Your task to perform on an android device: allow notifications from all sites in the chrome app Image 0: 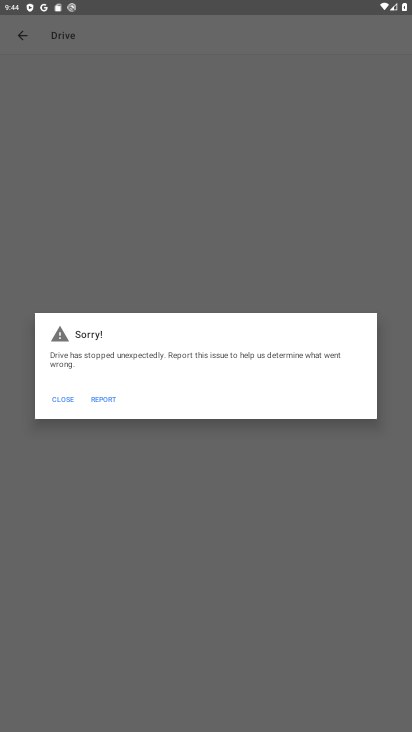
Step 0: press home button
Your task to perform on an android device: allow notifications from all sites in the chrome app Image 1: 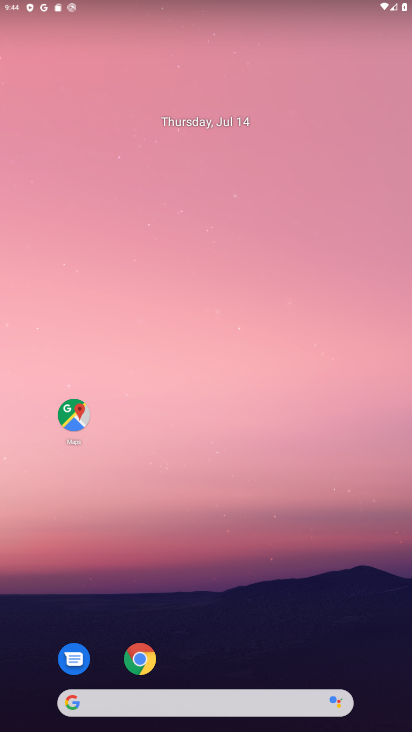
Step 1: drag from (290, 567) to (154, 35)
Your task to perform on an android device: allow notifications from all sites in the chrome app Image 2: 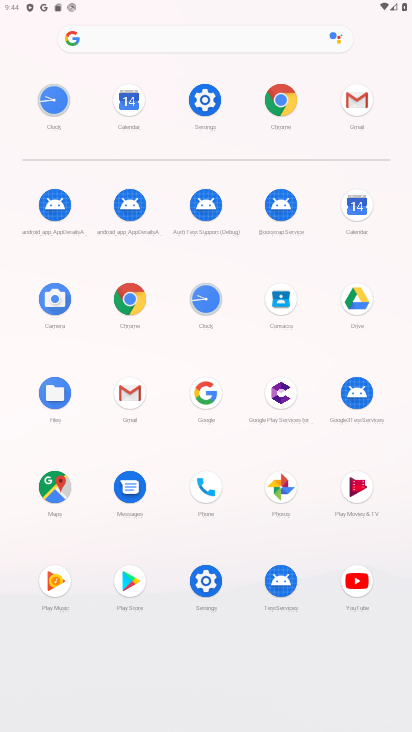
Step 2: click (130, 306)
Your task to perform on an android device: allow notifications from all sites in the chrome app Image 3: 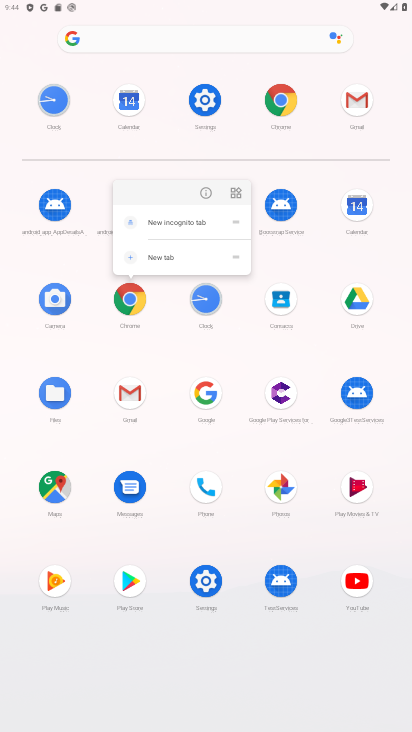
Step 3: click (130, 304)
Your task to perform on an android device: allow notifications from all sites in the chrome app Image 4: 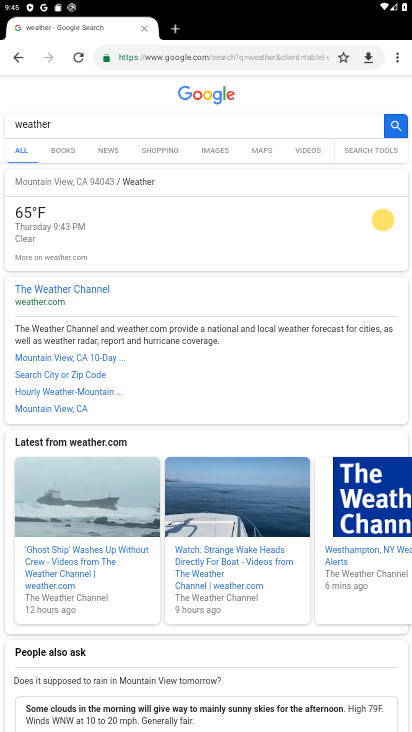
Step 4: drag from (399, 51) to (264, 350)
Your task to perform on an android device: allow notifications from all sites in the chrome app Image 5: 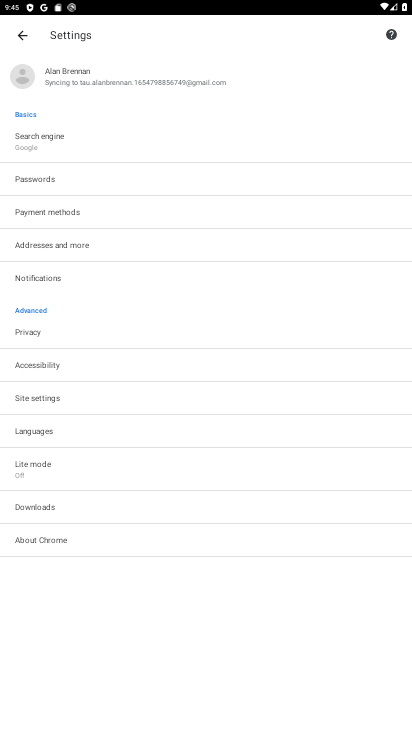
Step 5: click (38, 396)
Your task to perform on an android device: allow notifications from all sites in the chrome app Image 6: 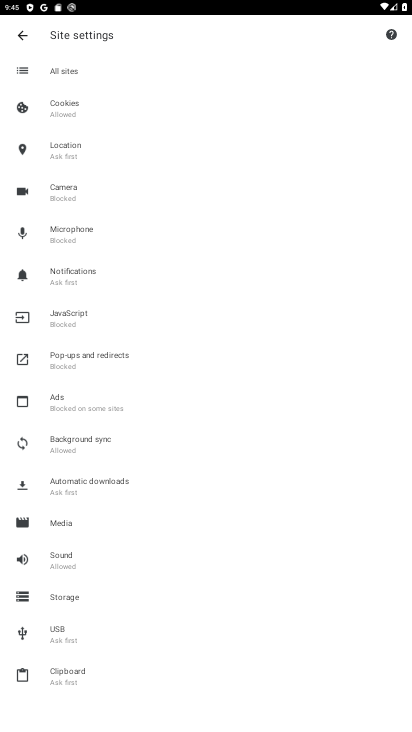
Step 6: click (57, 273)
Your task to perform on an android device: allow notifications from all sites in the chrome app Image 7: 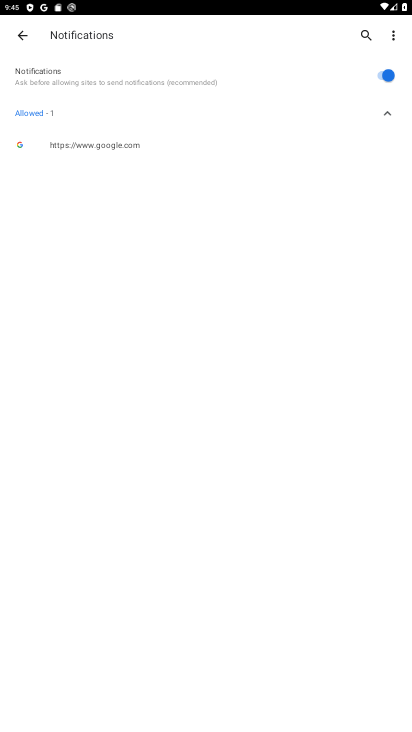
Step 7: task complete